Your task to perform on an android device: Go to sound settings Image 0: 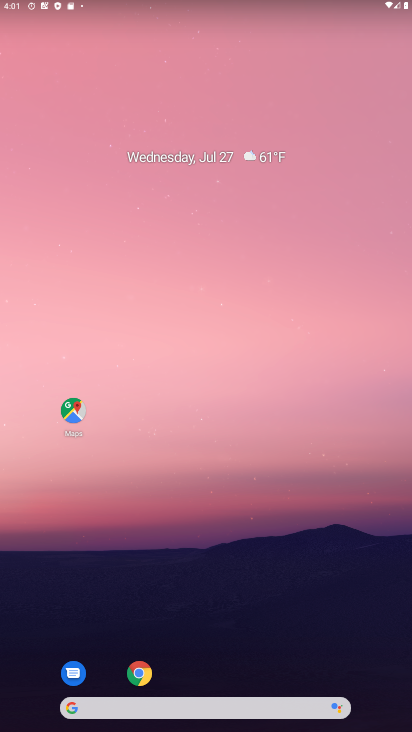
Step 0: drag from (14, 697) to (193, 303)
Your task to perform on an android device: Go to sound settings Image 1: 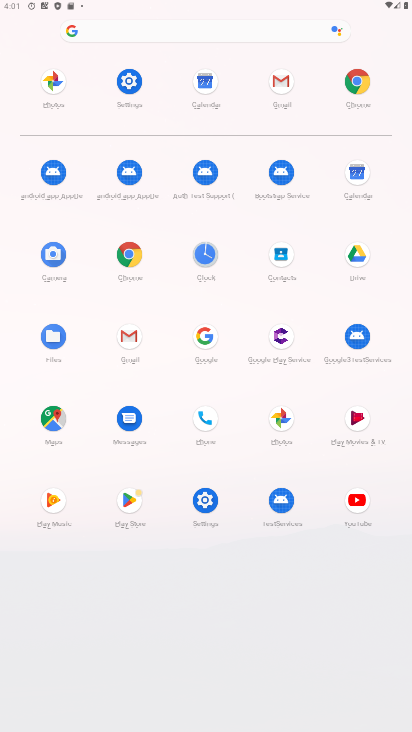
Step 1: click (202, 503)
Your task to perform on an android device: Go to sound settings Image 2: 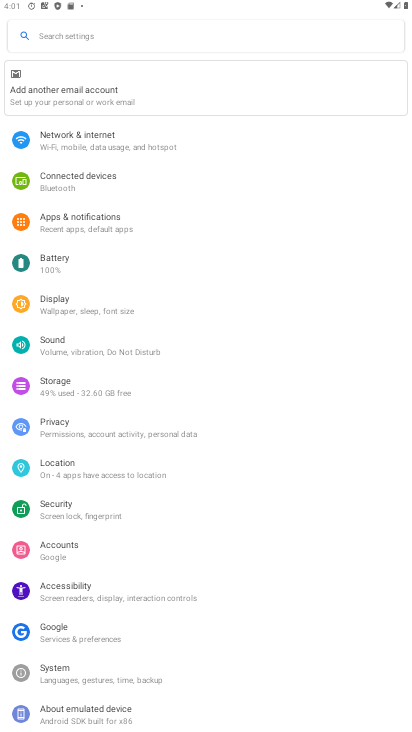
Step 2: click (79, 345)
Your task to perform on an android device: Go to sound settings Image 3: 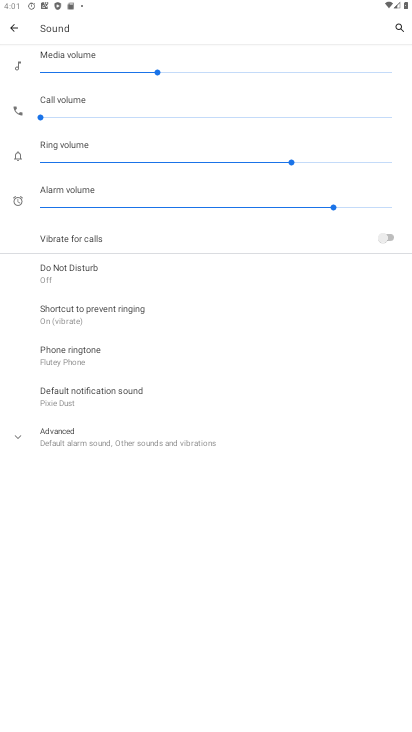
Step 3: task complete